Your task to perform on an android device: see sites visited before in the chrome app Image 0: 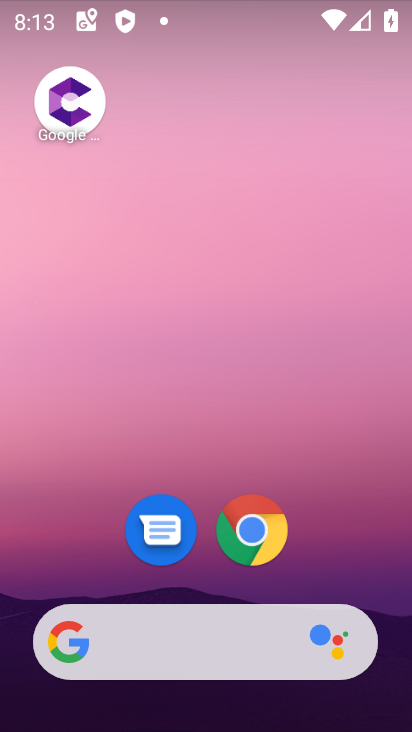
Step 0: drag from (11, 406) to (401, 453)
Your task to perform on an android device: see sites visited before in the chrome app Image 1: 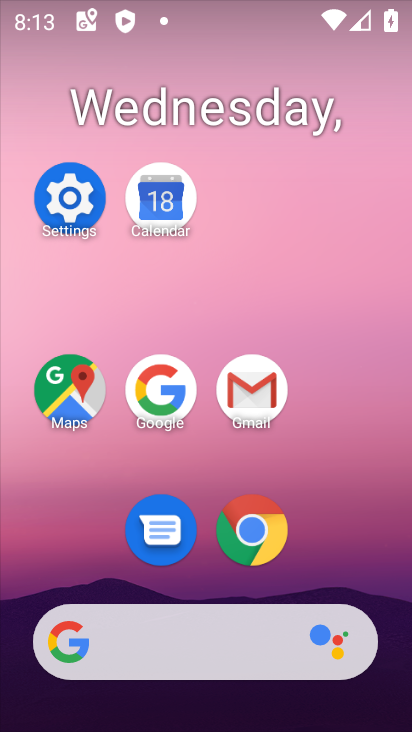
Step 1: click (272, 553)
Your task to perform on an android device: see sites visited before in the chrome app Image 2: 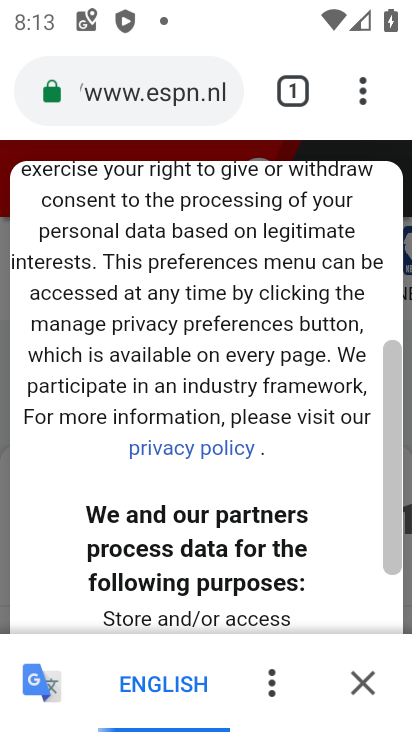
Step 2: click (391, 90)
Your task to perform on an android device: see sites visited before in the chrome app Image 3: 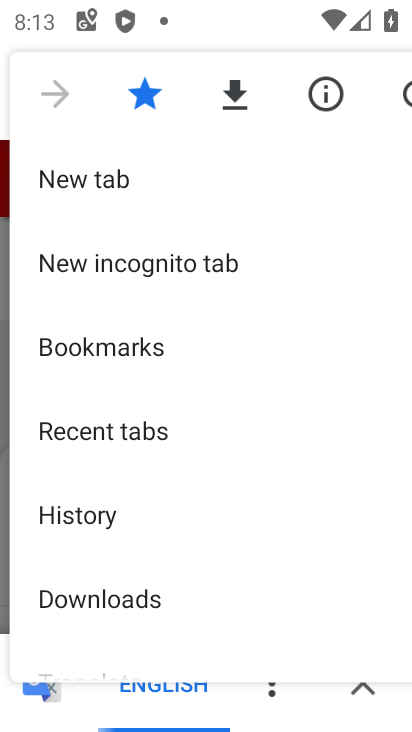
Step 3: click (227, 461)
Your task to perform on an android device: see sites visited before in the chrome app Image 4: 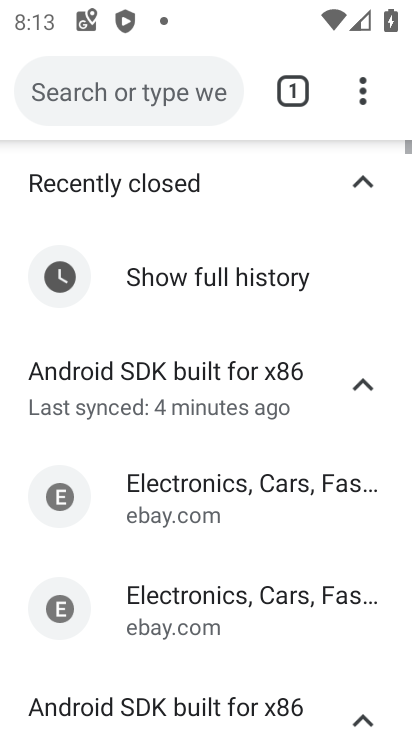
Step 4: click (169, 296)
Your task to perform on an android device: see sites visited before in the chrome app Image 5: 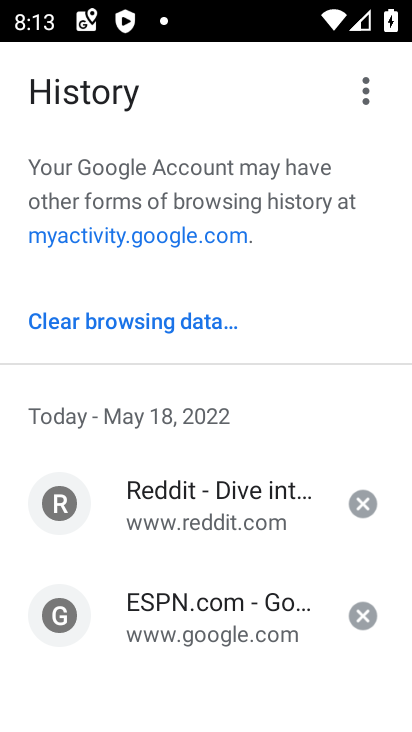
Step 5: task complete